Your task to perform on an android device: set default search engine in the chrome app Image 0: 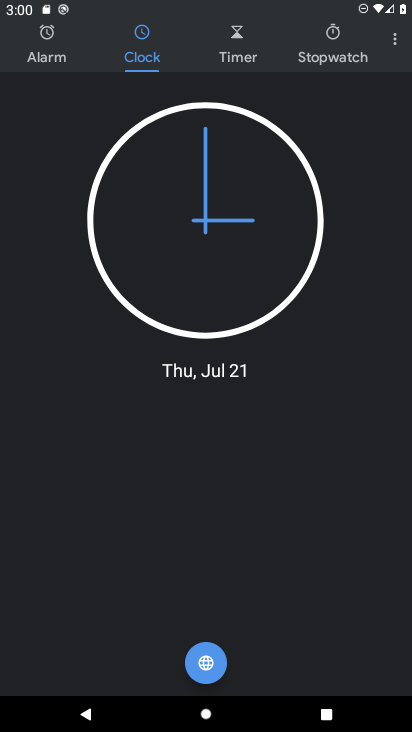
Step 0: press home button
Your task to perform on an android device: set default search engine in the chrome app Image 1: 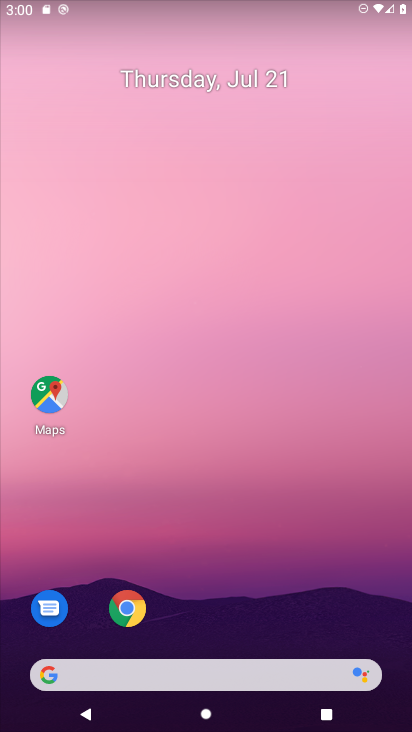
Step 1: click (132, 613)
Your task to perform on an android device: set default search engine in the chrome app Image 2: 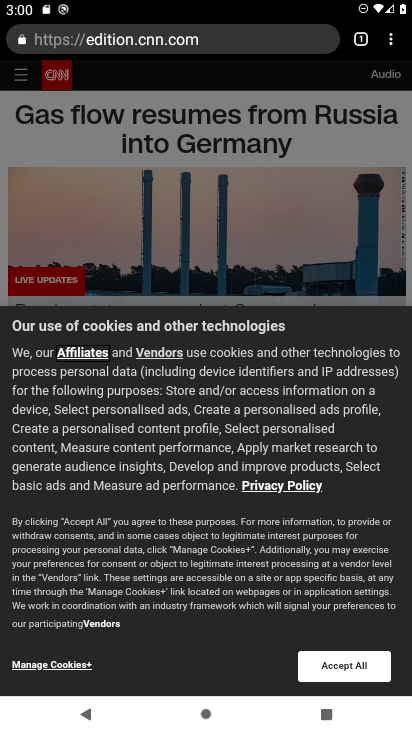
Step 2: click (395, 42)
Your task to perform on an android device: set default search engine in the chrome app Image 3: 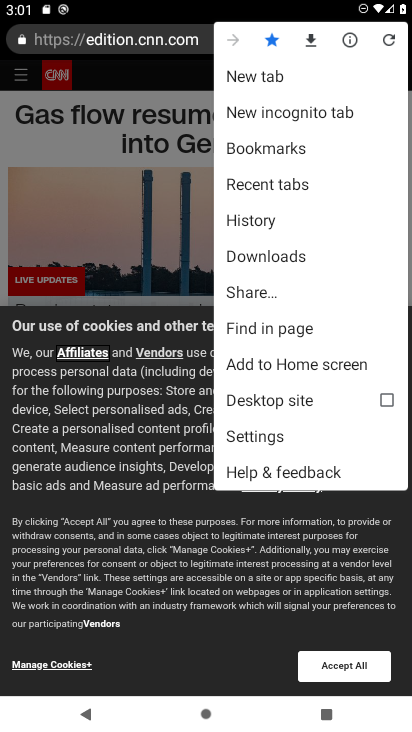
Step 3: click (255, 433)
Your task to perform on an android device: set default search engine in the chrome app Image 4: 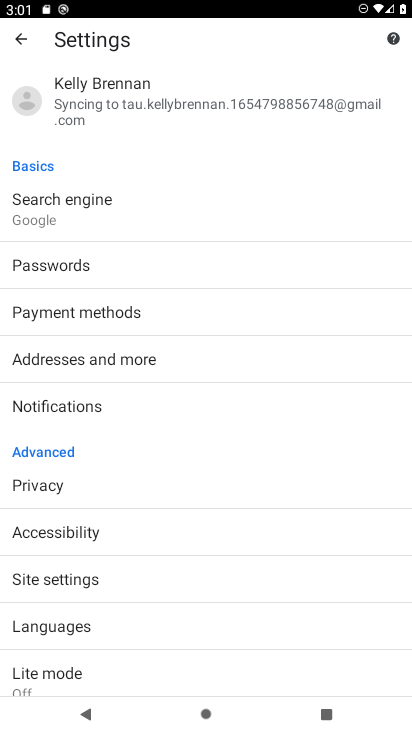
Step 4: click (90, 209)
Your task to perform on an android device: set default search engine in the chrome app Image 5: 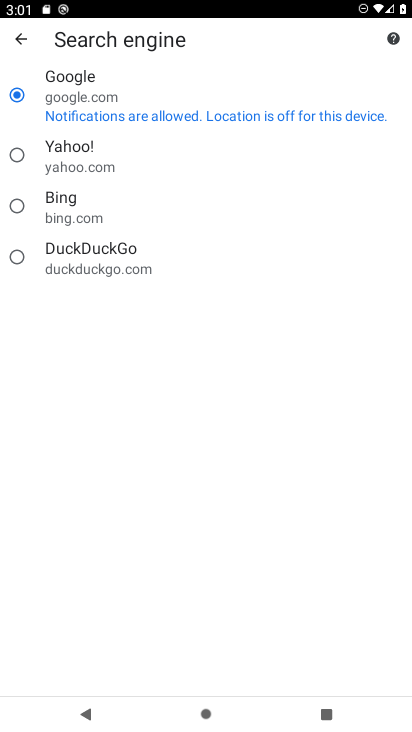
Step 5: task complete